Your task to perform on an android device: create a new album in the google photos Image 0: 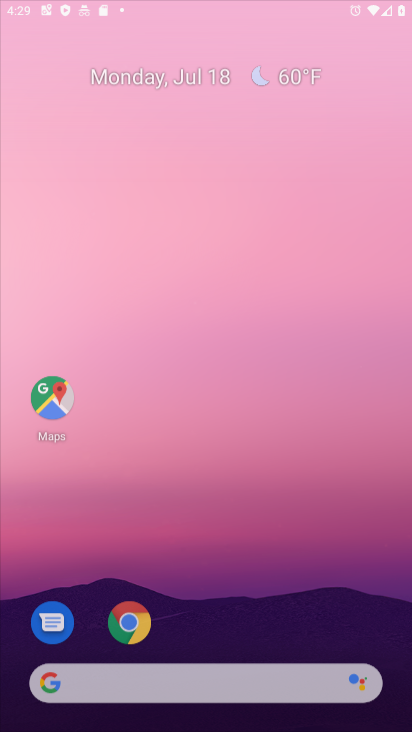
Step 0: click (273, 246)
Your task to perform on an android device: create a new album in the google photos Image 1: 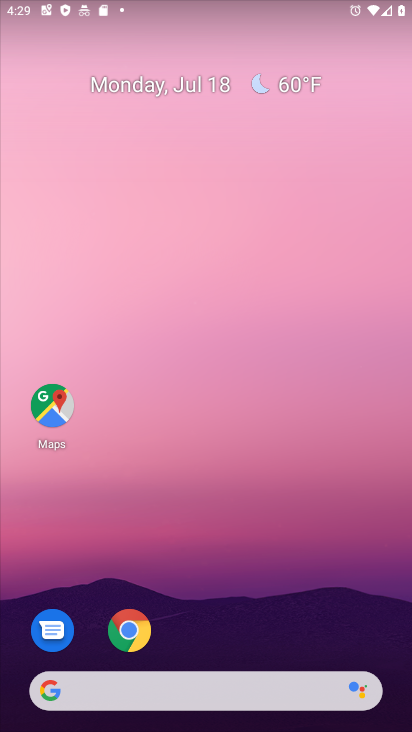
Step 1: drag from (241, 597) to (203, 200)
Your task to perform on an android device: create a new album in the google photos Image 2: 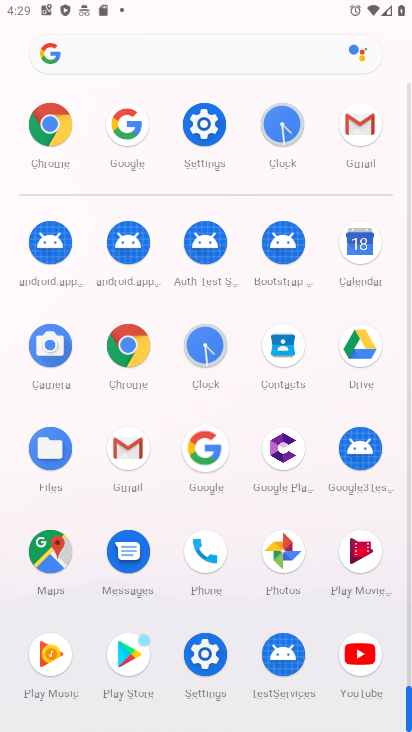
Step 2: click (281, 545)
Your task to perform on an android device: create a new album in the google photos Image 3: 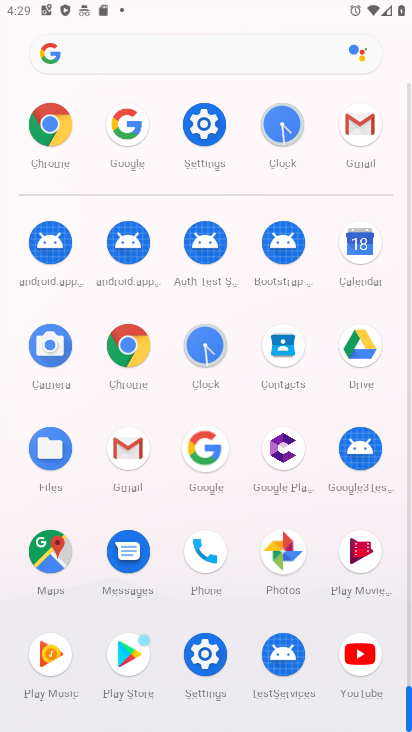
Step 3: click (282, 546)
Your task to perform on an android device: create a new album in the google photos Image 4: 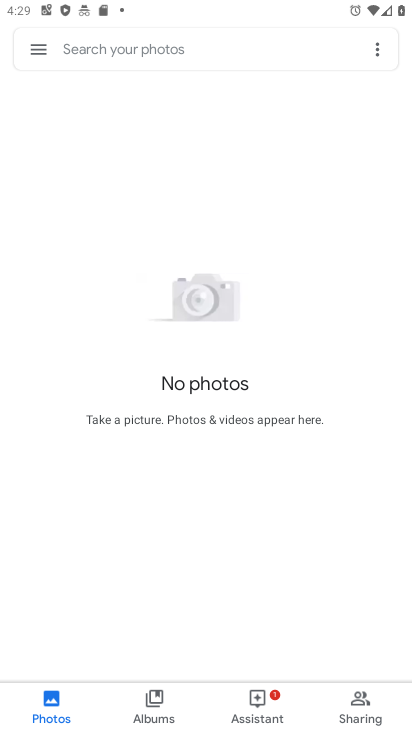
Step 4: drag from (368, 53) to (251, 486)
Your task to perform on an android device: create a new album in the google photos Image 5: 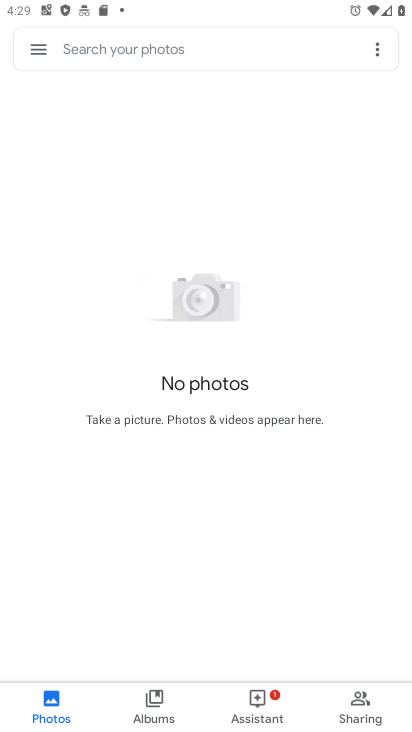
Step 5: drag from (367, 57) to (362, 133)
Your task to perform on an android device: create a new album in the google photos Image 6: 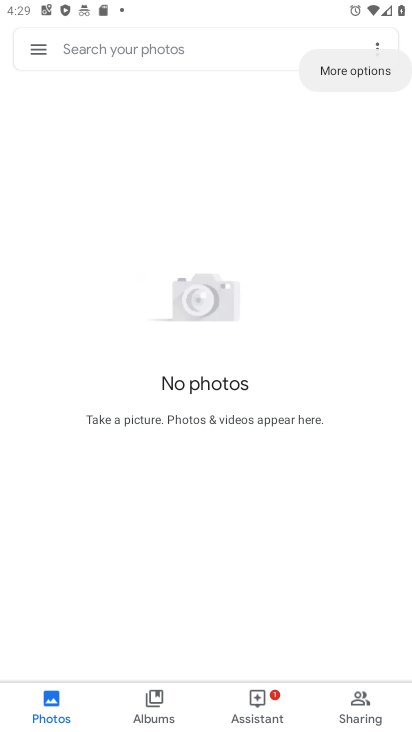
Step 6: click (377, 52)
Your task to perform on an android device: create a new album in the google photos Image 7: 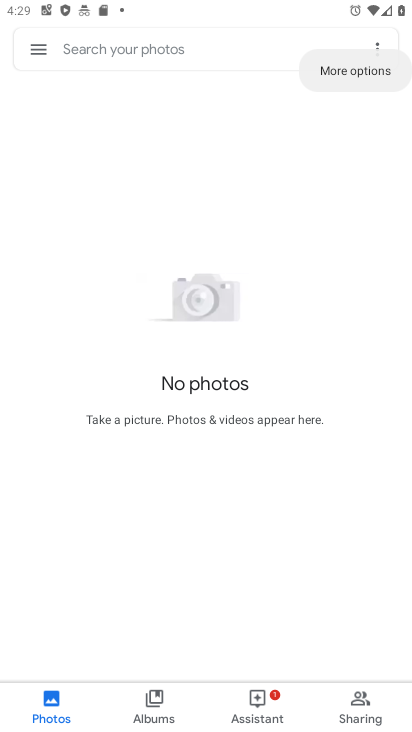
Step 7: click (378, 51)
Your task to perform on an android device: create a new album in the google photos Image 8: 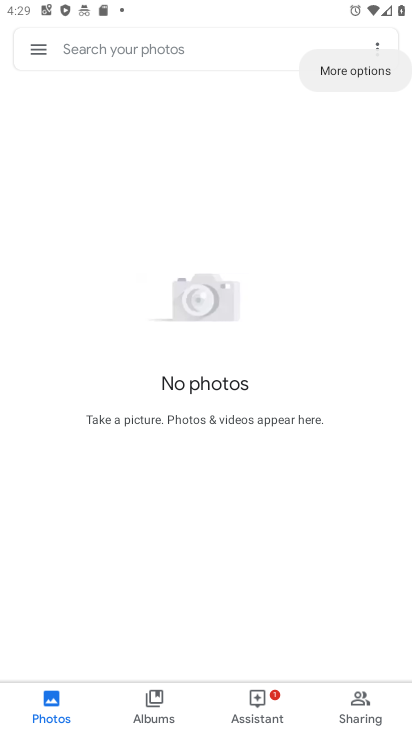
Step 8: click (379, 50)
Your task to perform on an android device: create a new album in the google photos Image 9: 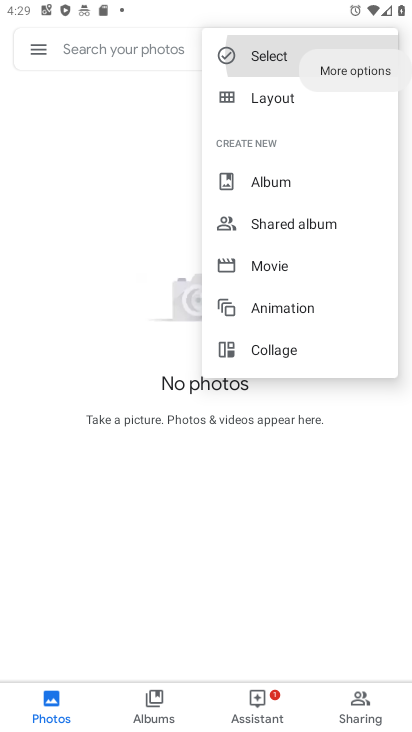
Step 9: click (382, 49)
Your task to perform on an android device: create a new album in the google photos Image 10: 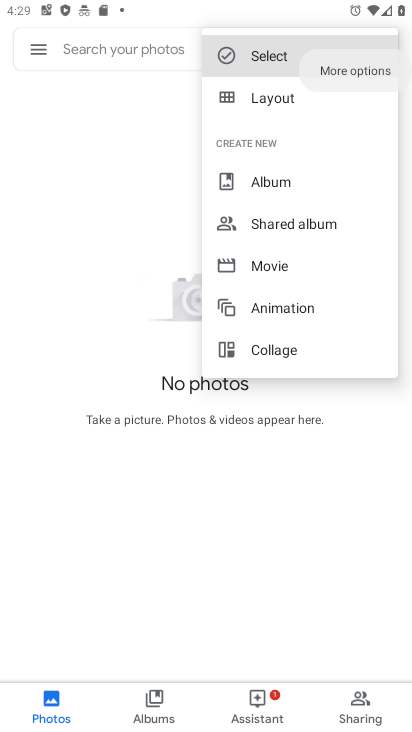
Step 10: drag from (382, 49) to (278, 301)
Your task to perform on an android device: create a new album in the google photos Image 11: 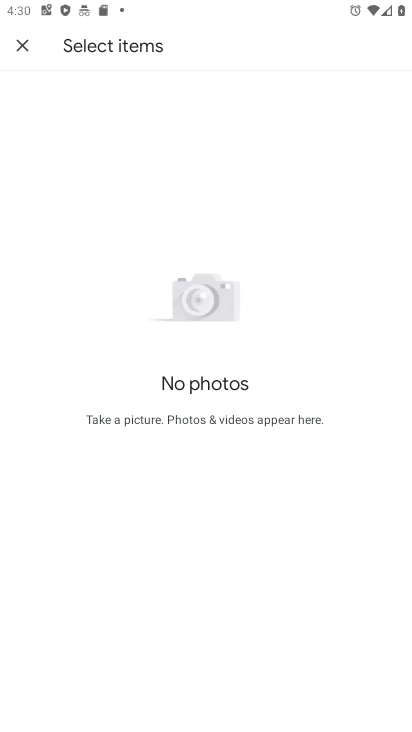
Step 11: click (20, 37)
Your task to perform on an android device: create a new album in the google photos Image 12: 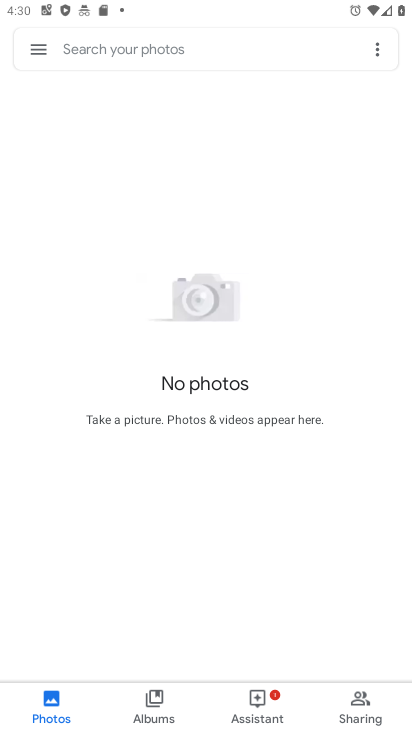
Step 12: click (194, 319)
Your task to perform on an android device: create a new album in the google photos Image 13: 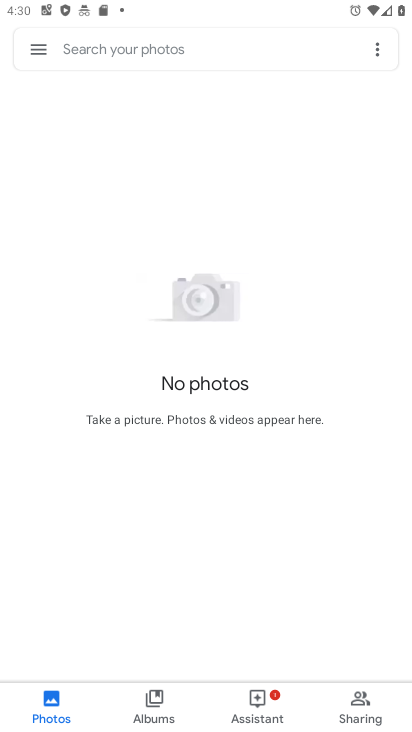
Step 13: click (152, 691)
Your task to perform on an android device: create a new album in the google photos Image 14: 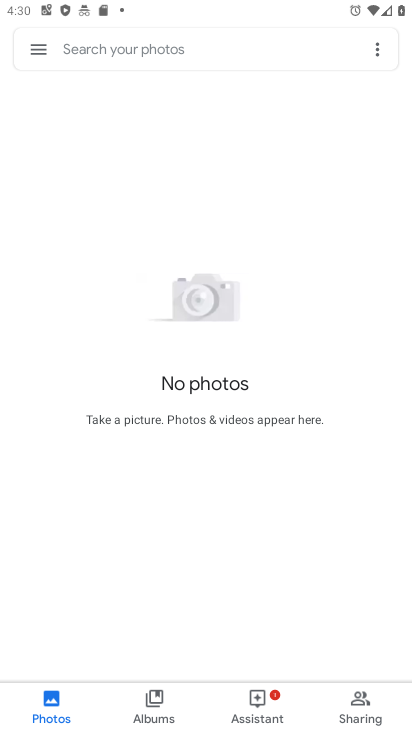
Step 14: click (153, 694)
Your task to perform on an android device: create a new album in the google photos Image 15: 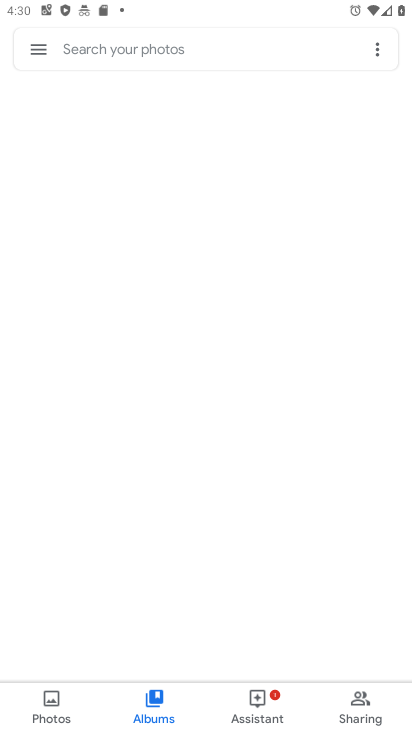
Step 15: click (147, 691)
Your task to perform on an android device: create a new album in the google photos Image 16: 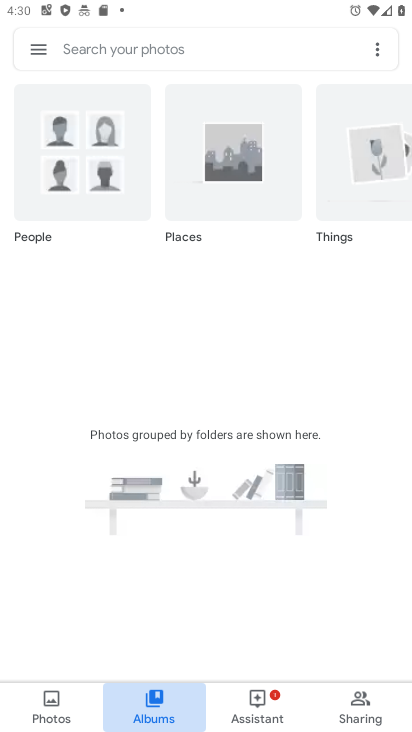
Step 16: click (149, 690)
Your task to perform on an android device: create a new album in the google photos Image 17: 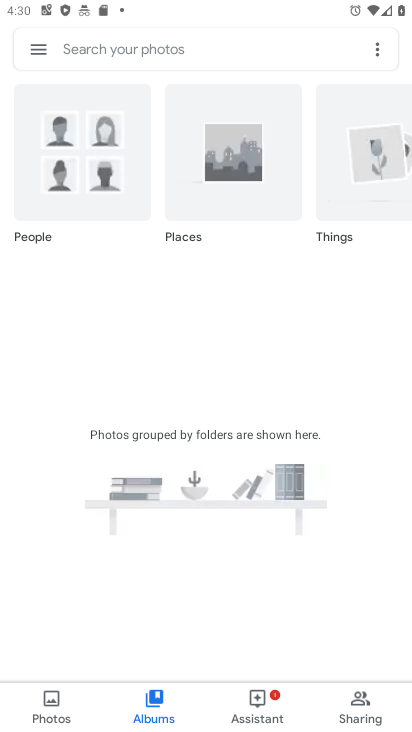
Step 17: drag from (372, 56) to (343, 236)
Your task to perform on an android device: create a new album in the google photos Image 18: 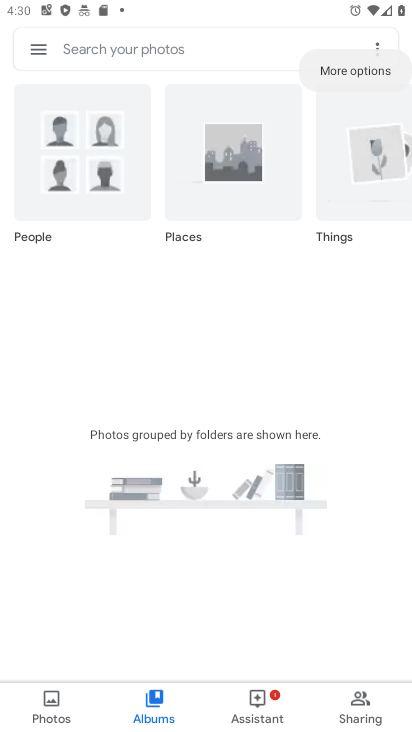
Step 18: click (378, 48)
Your task to perform on an android device: create a new album in the google photos Image 19: 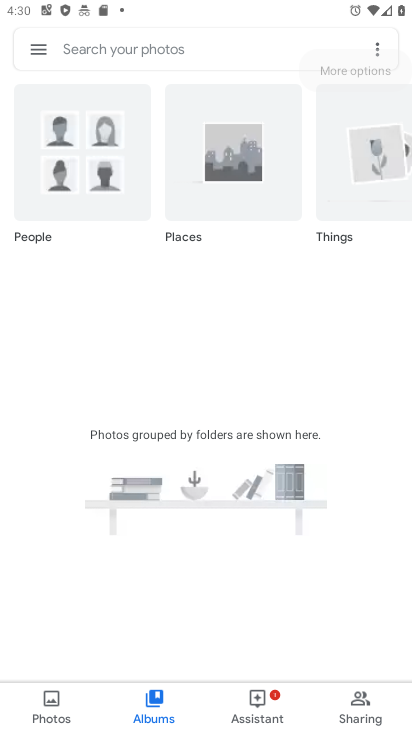
Step 19: click (378, 48)
Your task to perform on an android device: create a new album in the google photos Image 20: 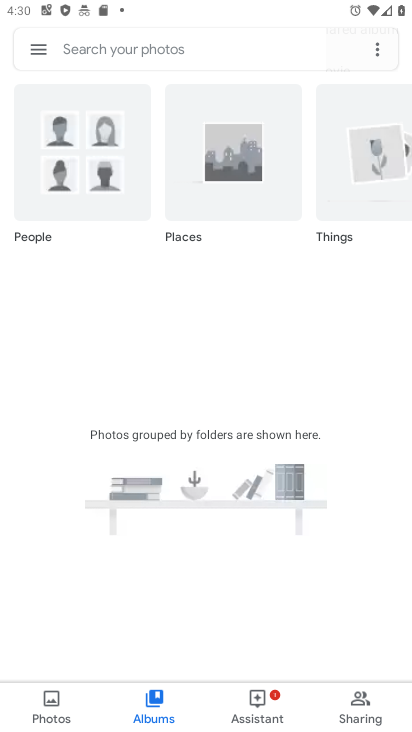
Step 20: click (378, 48)
Your task to perform on an android device: create a new album in the google photos Image 21: 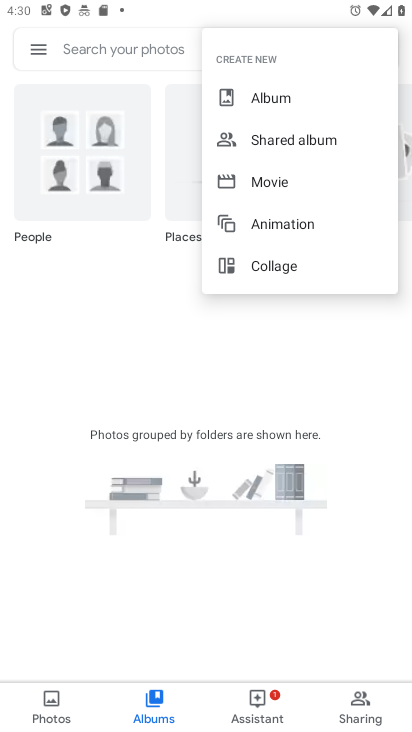
Step 21: click (377, 48)
Your task to perform on an android device: create a new album in the google photos Image 22: 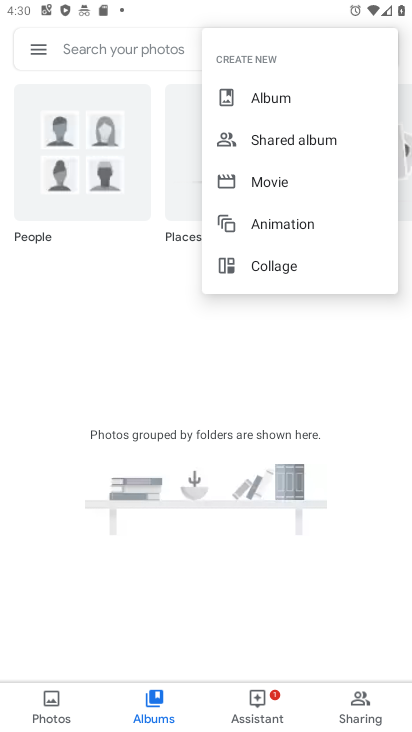
Step 22: click (377, 48)
Your task to perform on an android device: create a new album in the google photos Image 23: 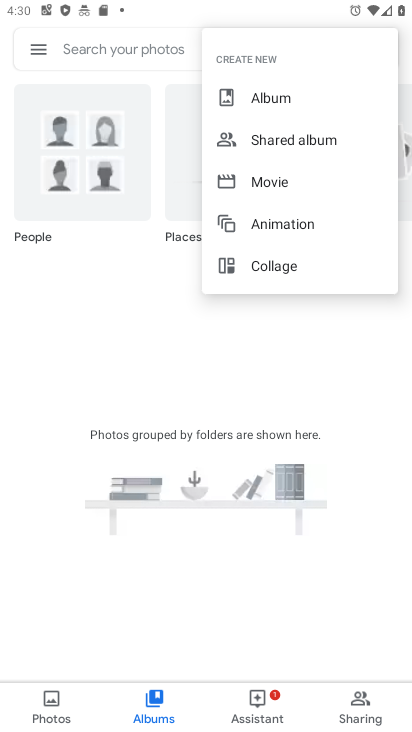
Step 23: click (255, 70)
Your task to perform on an android device: create a new album in the google photos Image 24: 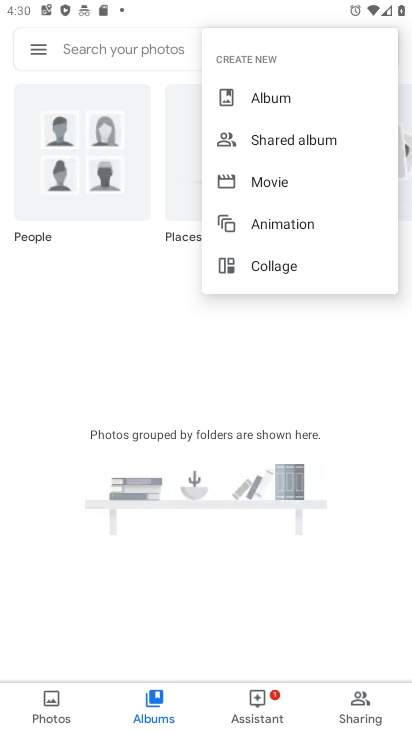
Step 24: click (263, 92)
Your task to perform on an android device: create a new album in the google photos Image 25: 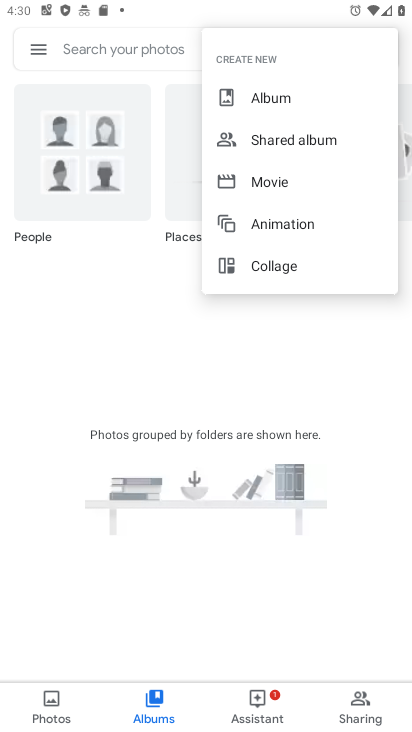
Step 25: click (267, 88)
Your task to perform on an android device: create a new album in the google photos Image 26: 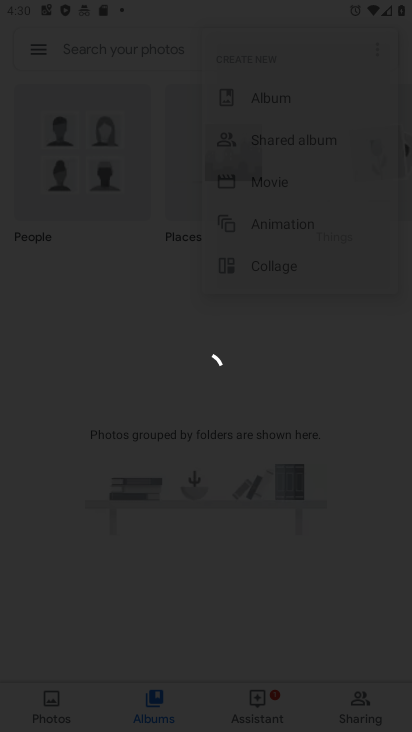
Step 26: click (269, 89)
Your task to perform on an android device: create a new album in the google photos Image 27: 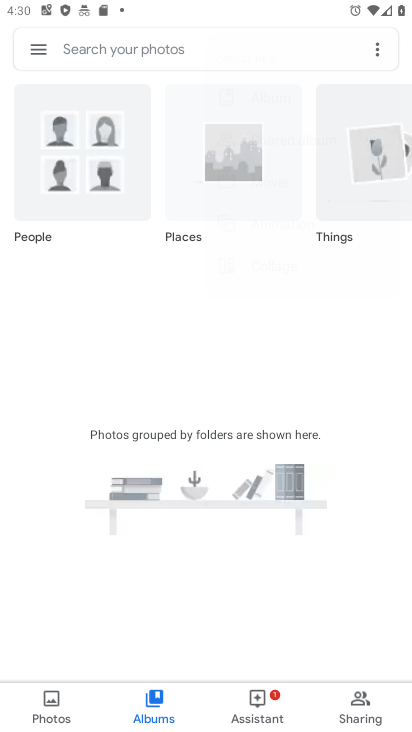
Step 27: click (279, 89)
Your task to perform on an android device: create a new album in the google photos Image 28: 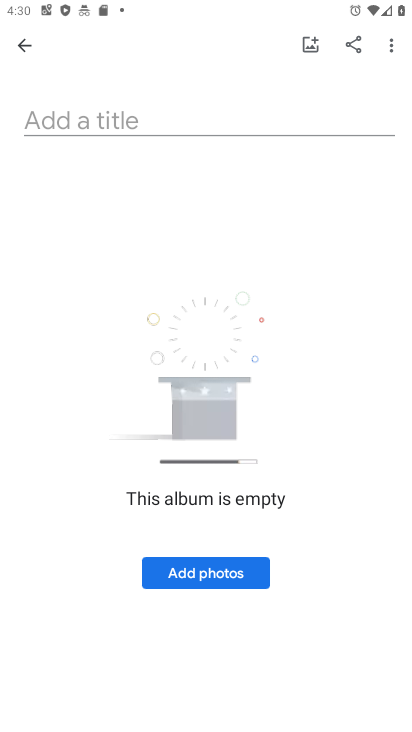
Step 28: click (208, 583)
Your task to perform on an android device: create a new album in the google photos Image 29: 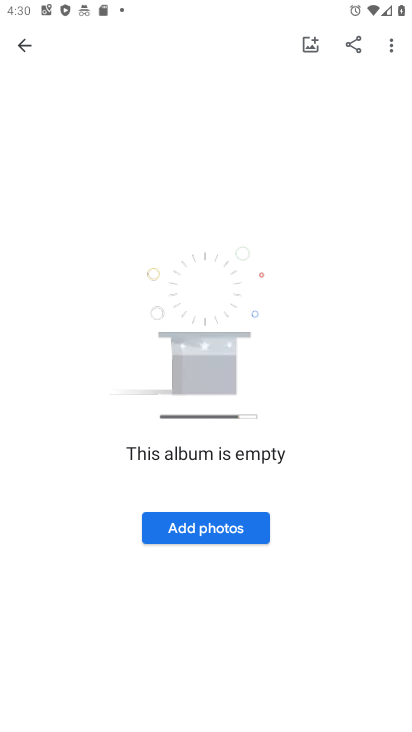
Step 29: click (84, 119)
Your task to perform on an android device: create a new album in the google photos Image 30: 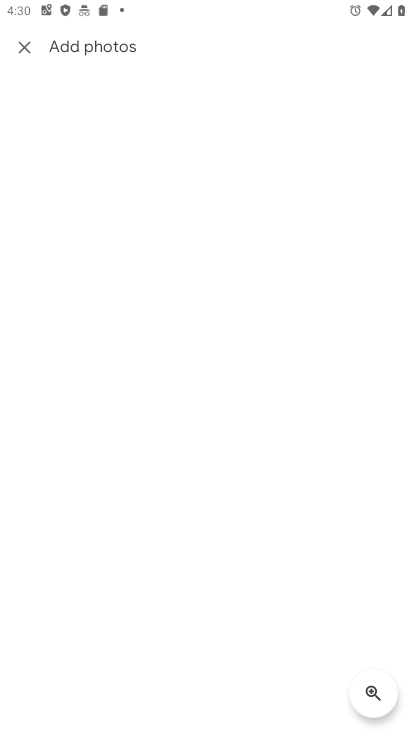
Step 30: click (79, 123)
Your task to perform on an android device: create a new album in the google photos Image 31: 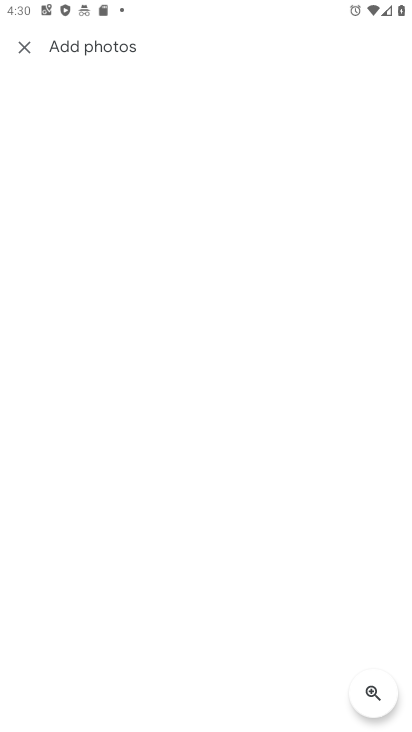
Step 31: task complete